Your task to perform on an android device: turn on the 12-hour format for clock Image 0: 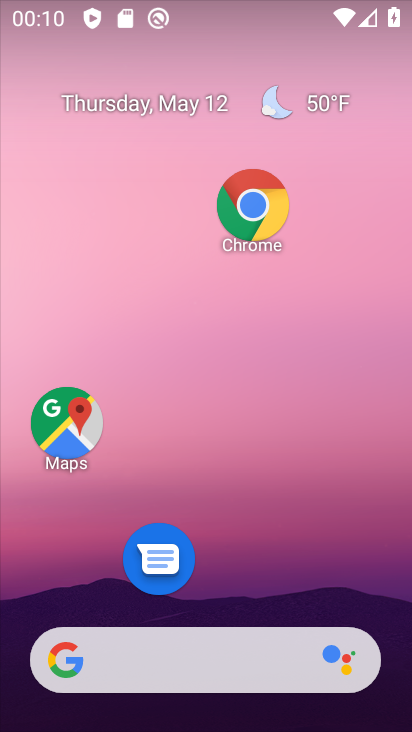
Step 0: drag from (292, 608) to (245, 203)
Your task to perform on an android device: turn on the 12-hour format for clock Image 1: 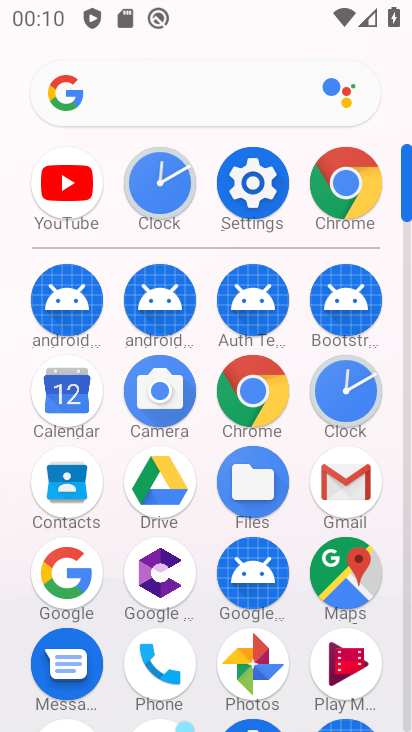
Step 1: drag from (208, 630) to (254, 294)
Your task to perform on an android device: turn on the 12-hour format for clock Image 2: 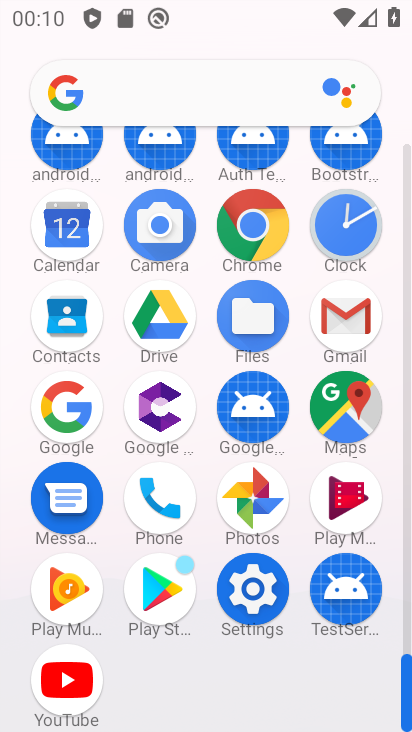
Step 2: drag from (197, 256) to (172, 563)
Your task to perform on an android device: turn on the 12-hour format for clock Image 3: 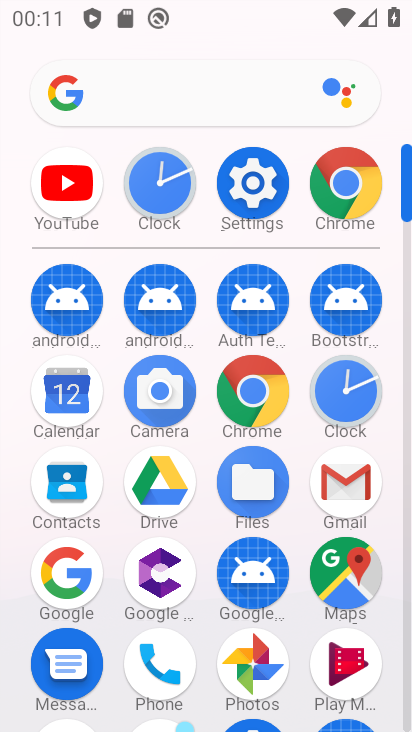
Step 3: click (154, 190)
Your task to perform on an android device: turn on the 12-hour format for clock Image 4: 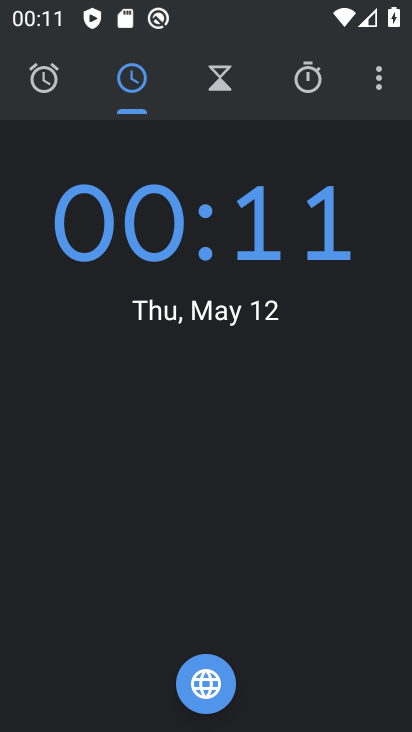
Step 4: click (375, 86)
Your task to perform on an android device: turn on the 12-hour format for clock Image 5: 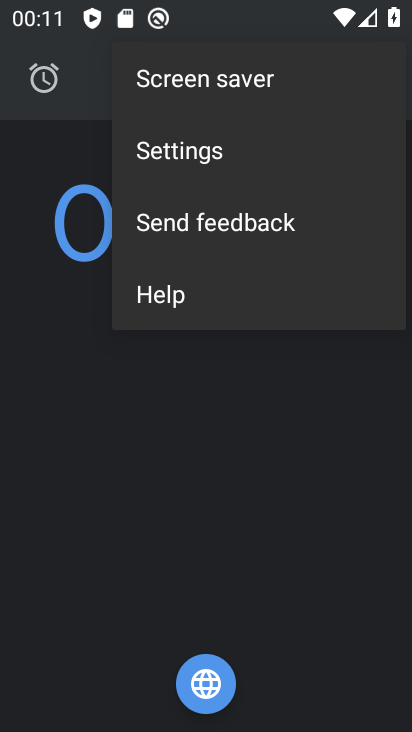
Step 5: click (251, 172)
Your task to perform on an android device: turn on the 12-hour format for clock Image 6: 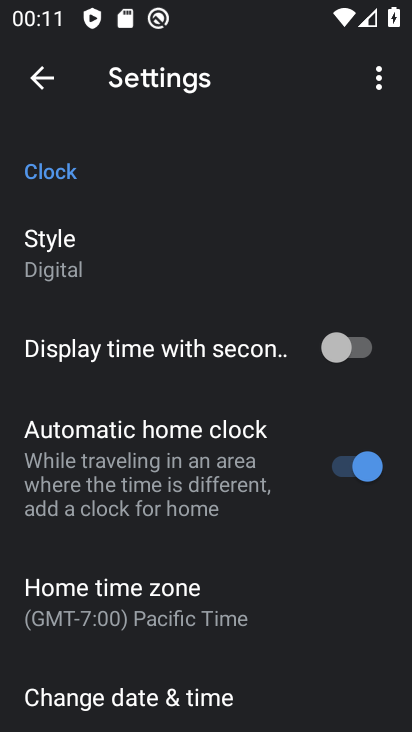
Step 6: click (191, 701)
Your task to perform on an android device: turn on the 12-hour format for clock Image 7: 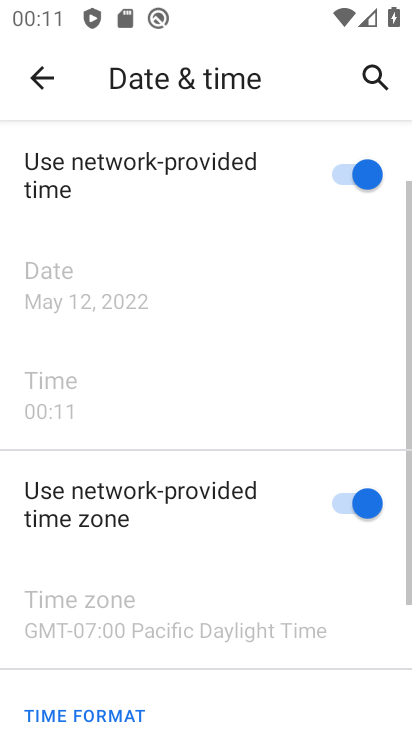
Step 7: drag from (240, 519) to (280, 315)
Your task to perform on an android device: turn on the 12-hour format for clock Image 8: 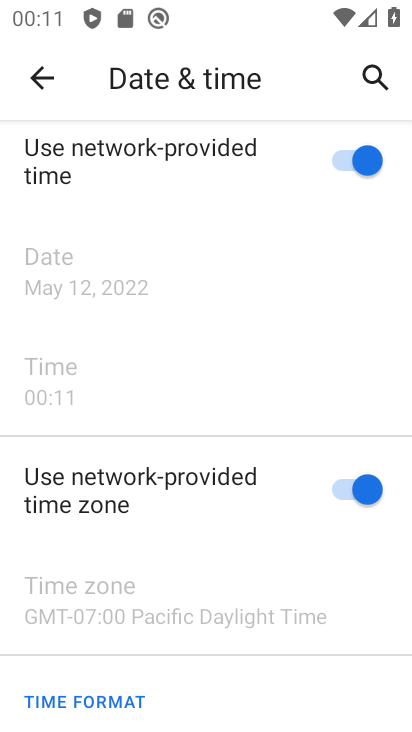
Step 8: drag from (252, 675) to (274, 428)
Your task to perform on an android device: turn on the 12-hour format for clock Image 9: 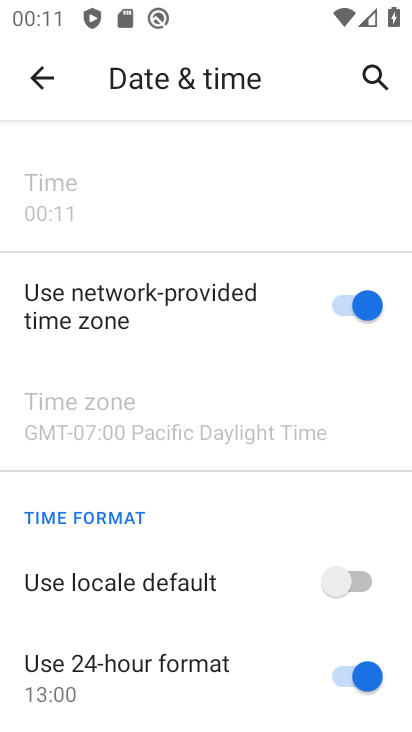
Step 9: click (336, 680)
Your task to perform on an android device: turn on the 12-hour format for clock Image 10: 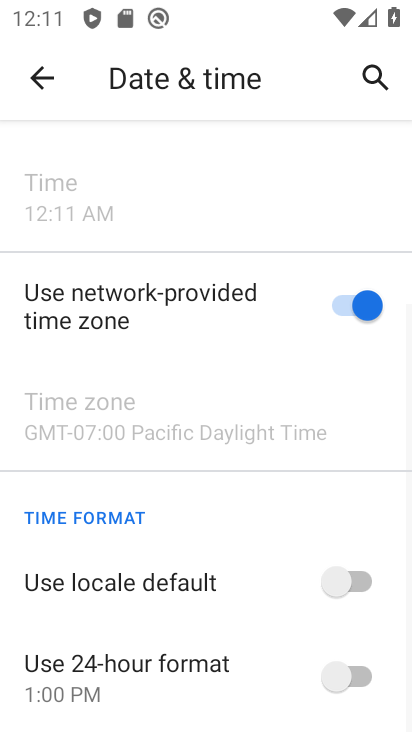
Step 10: click (370, 579)
Your task to perform on an android device: turn on the 12-hour format for clock Image 11: 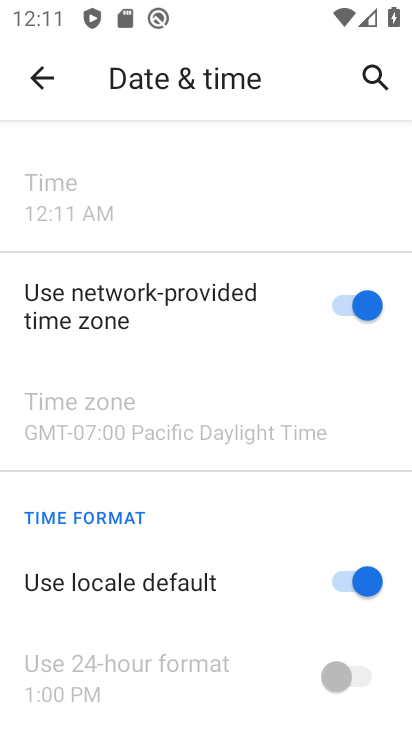
Step 11: task complete